Your task to perform on an android device: turn on javascript in the chrome app Image 0: 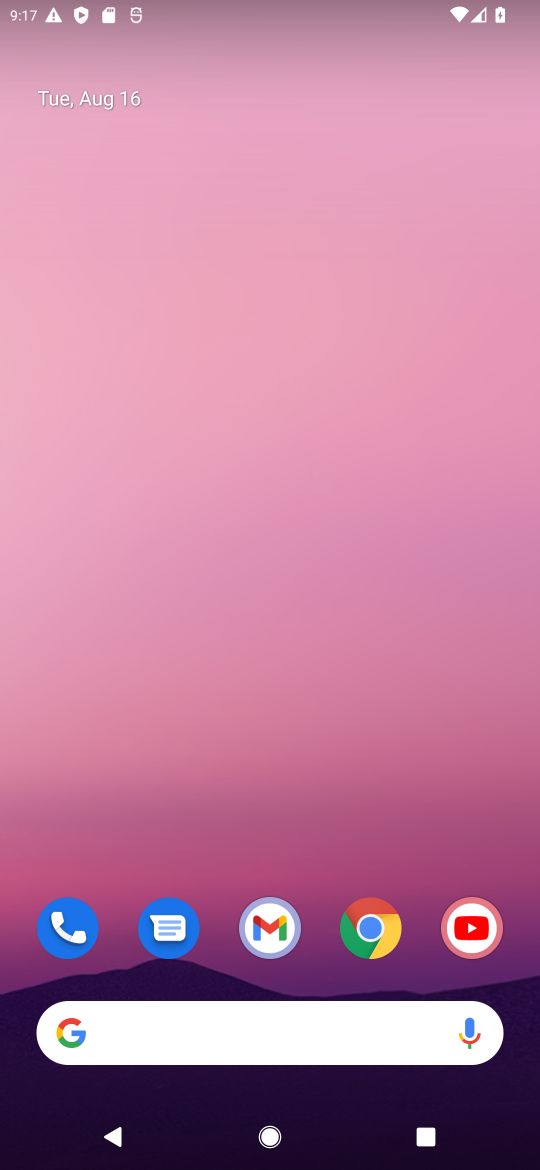
Step 0: press home button
Your task to perform on an android device: turn on javascript in the chrome app Image 1: 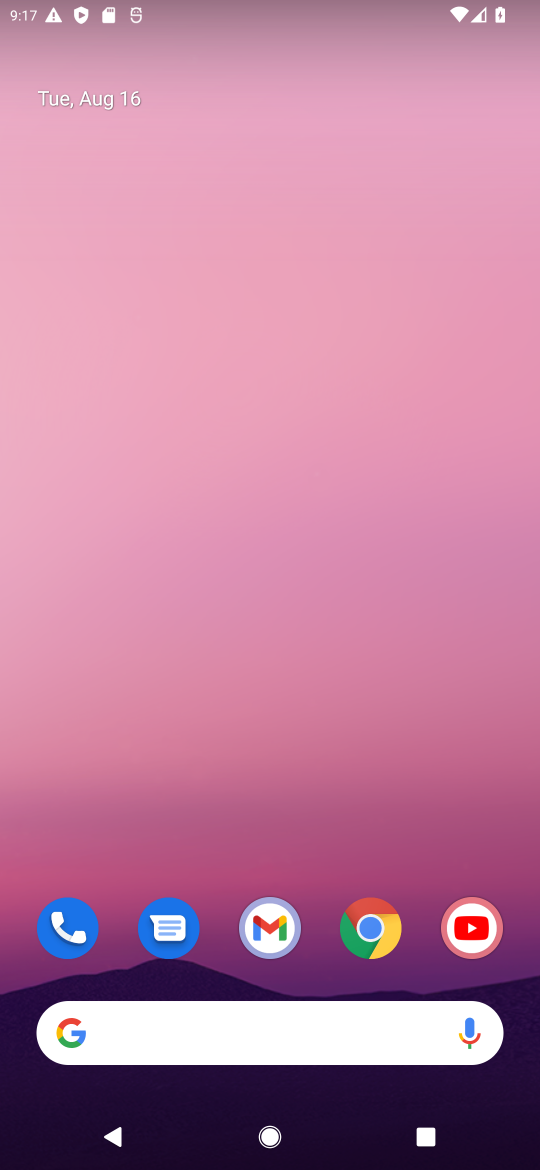
Step 1: click (363, 920)
Your task to perform on an android device: turn on javascript in the chrome app Image 2: 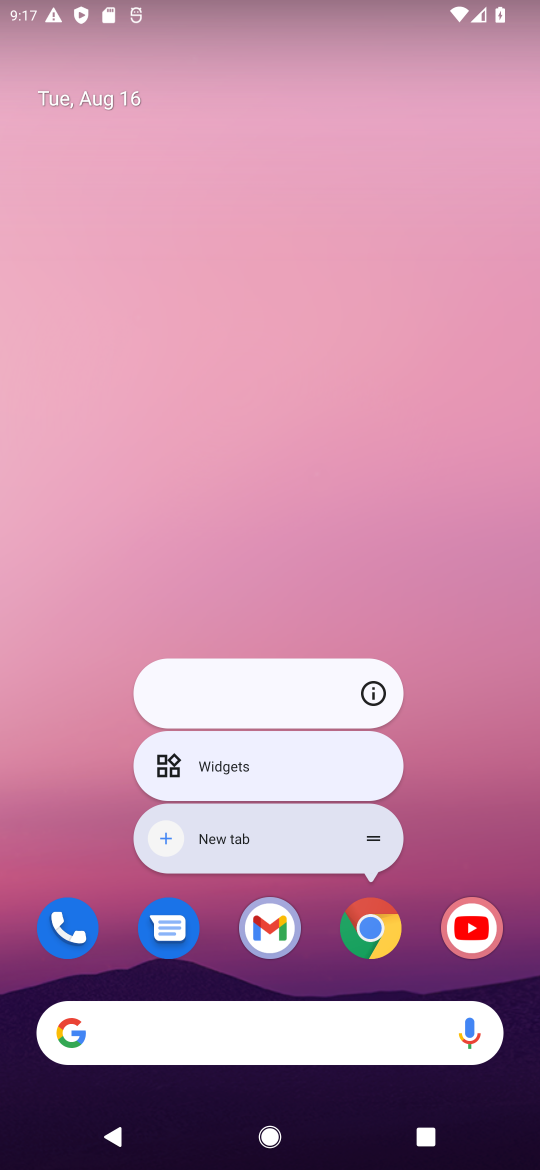
Step 2: click (384, 932)
Your task to perform on an android device: turn on javascript in the chrome app Image 3: 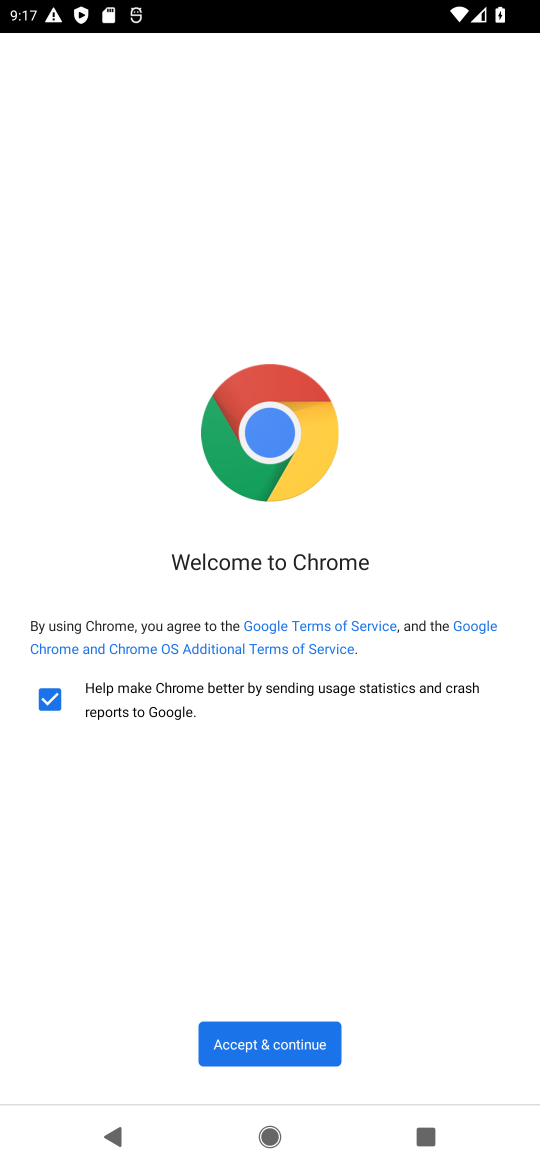
Step 3: click (261, 1046)
Your task to perform on an android device: turn on javascript in the chrome app Image 4: 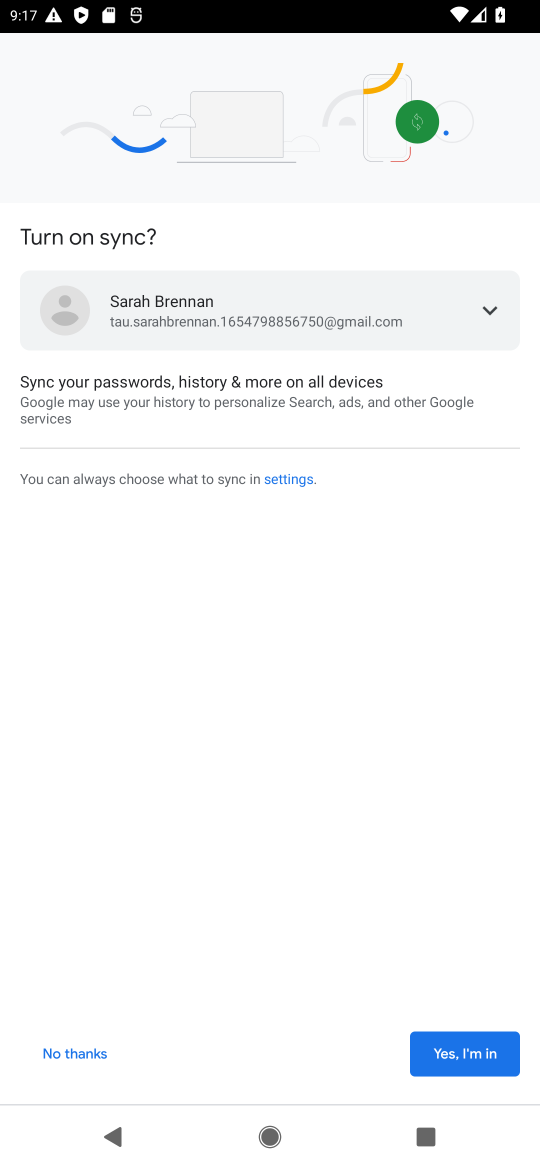
Step 4: click (460, 1055)
Your task to perform on an android device: turn on javascript in the chrome app Image 5: 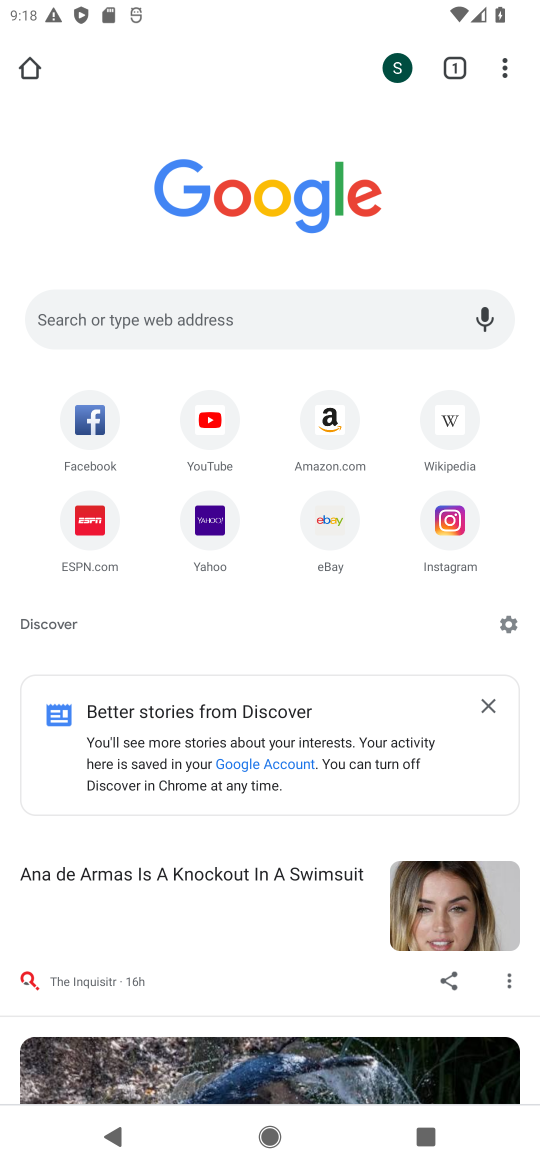
Step 5: drag from (504, 68) to (319, 585)
Your task to perform on an android device: turn on javascript in the chrome app Image 6: 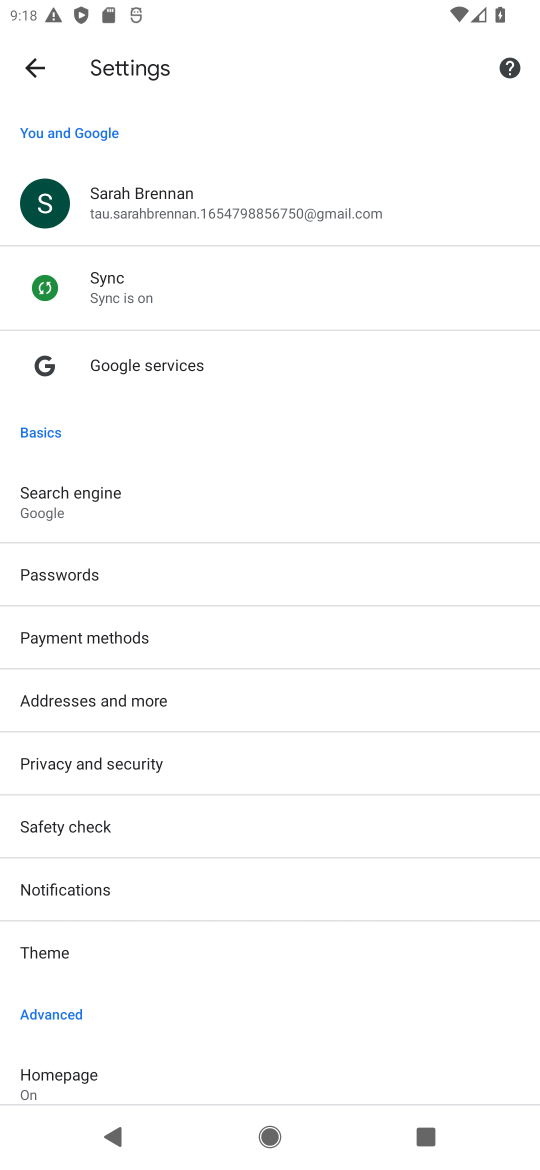
Step 6: drag from (124, 1018) to (167, 535)
Your task to perform on an android device: turn on javascript in the chrome app Image 7: 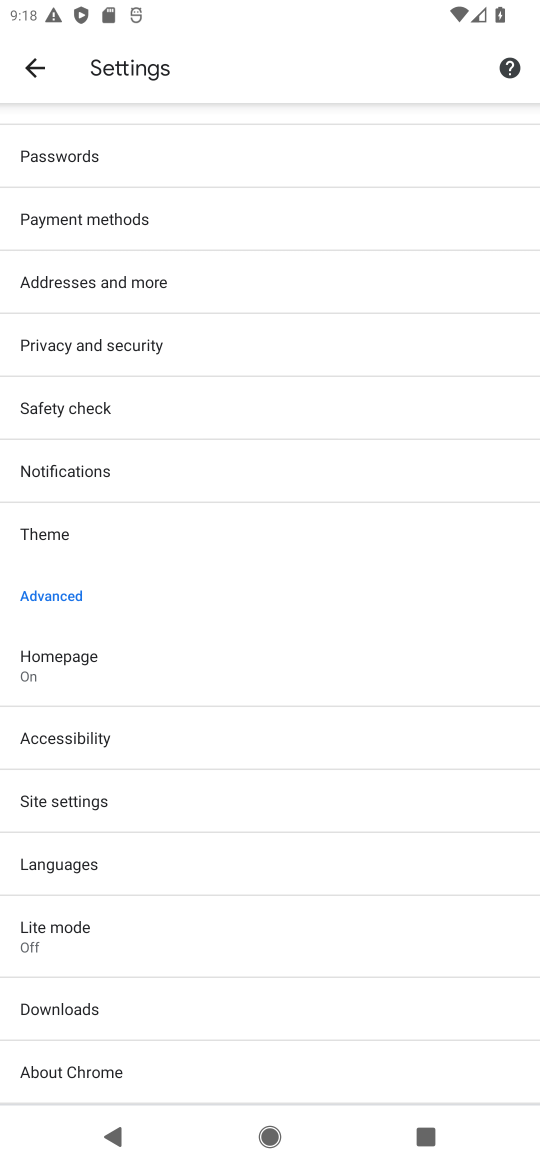
Step 7: click (107, 802)
Your task to perform on an android device: turn on javascript in the chrome app Image 8: 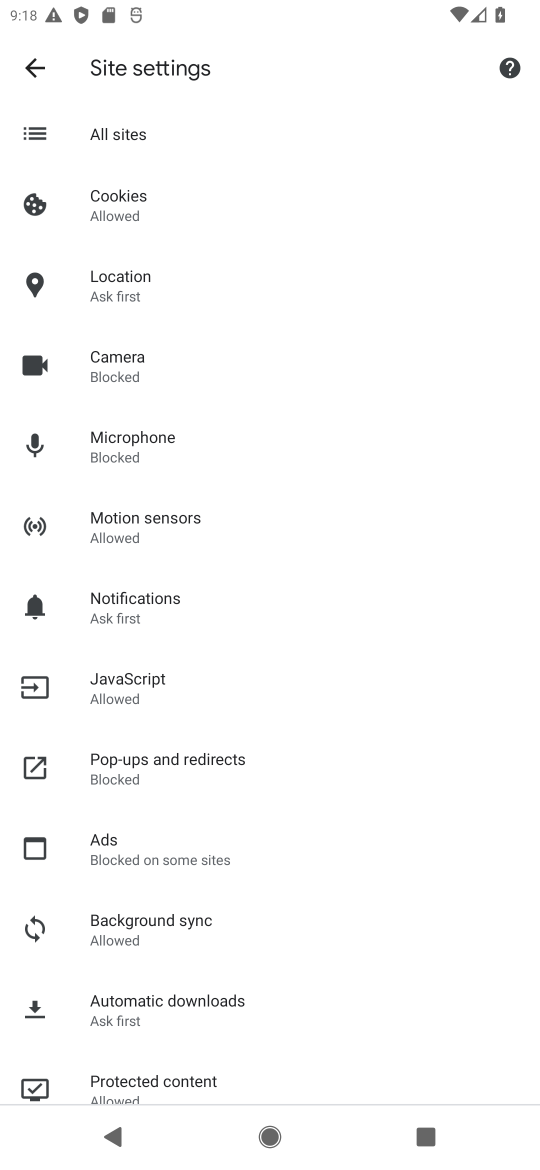
Step 8: click (136, 696)
Your task to perform on an android device: turn on javascript in the chrome app Image 9: 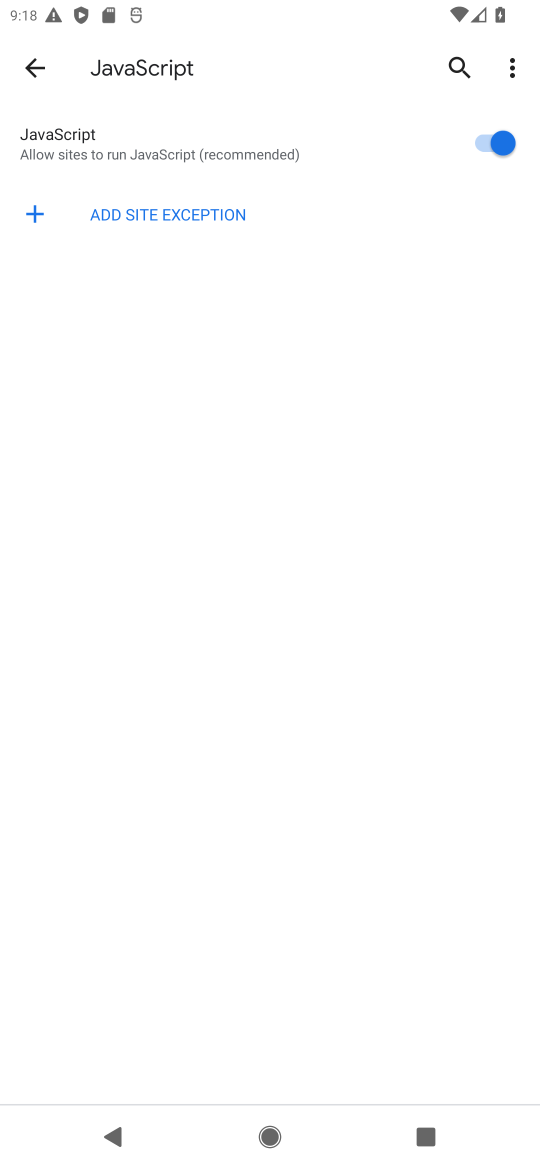
Step 9: task complete